Your task to perform on an android device: change the clock display to digital Image 0: 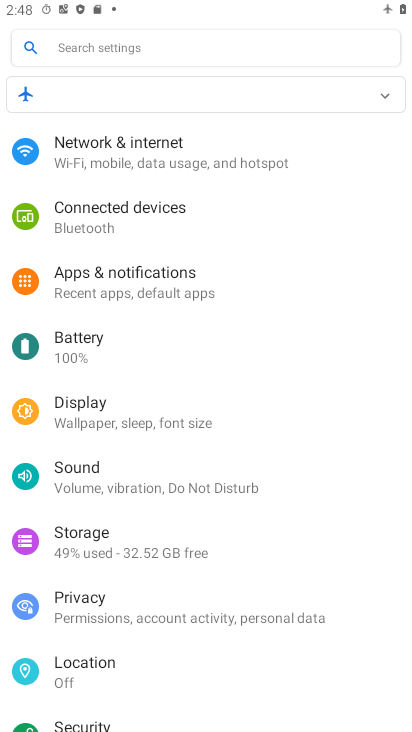
Step 0: press home button
Your task to perform on an android device: change the clock display to digital Image 1: 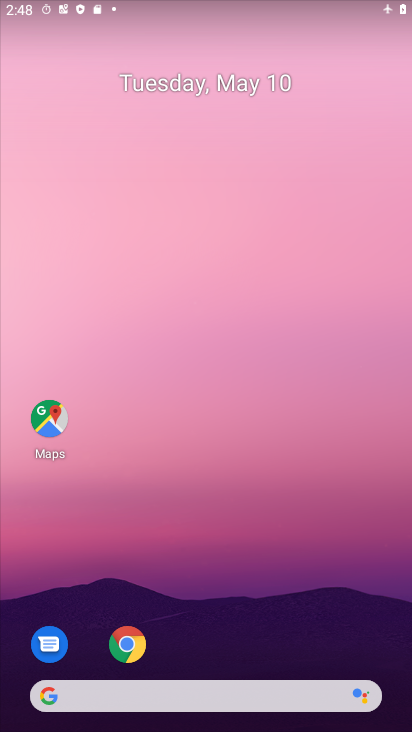
Step 1: drag from (242, 620) to (313, 168)
Your task to perform on an android device: change the clock display to digital Image 2: 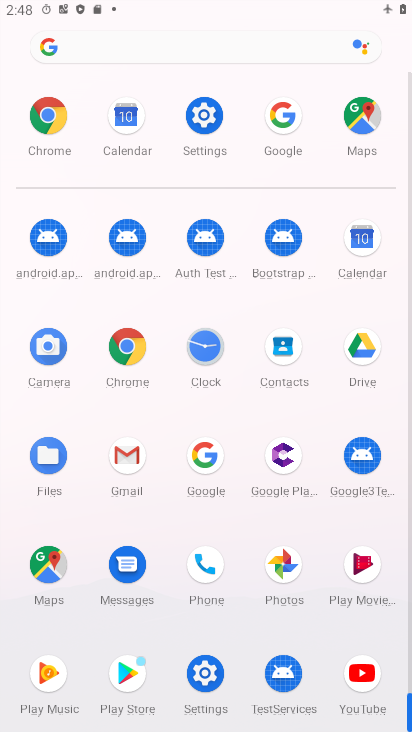
Step 2: click (216, 359)
Your task to perform on an android device: change the clock display to digital Image 3: 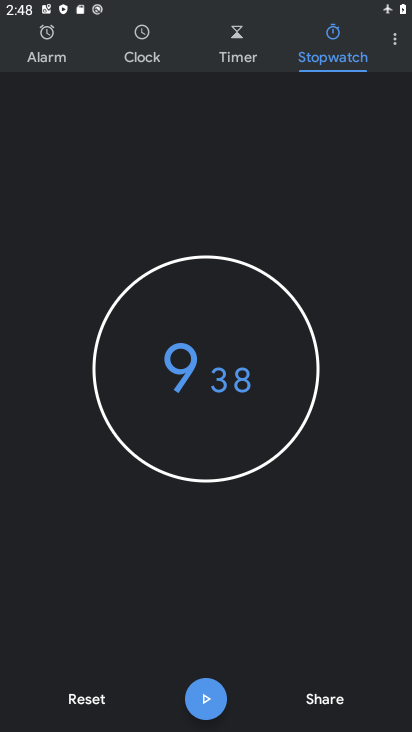
Step 3: click (396, 46)
Your task to perform on an android device: change the clock display to digital Image 4: 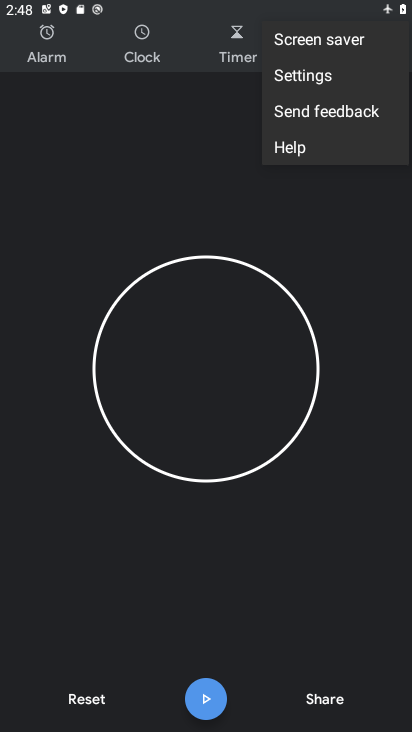
Step 4: click (319, 73)
Your task to perform on an android device: change the clock display to digital Image 5: 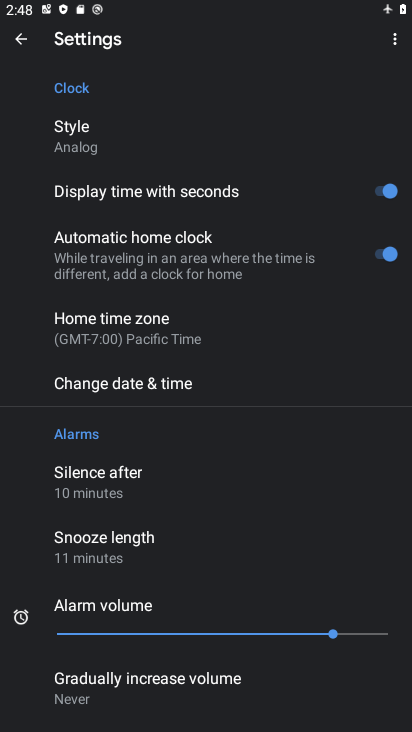
Step 5: click (140, 141)
Your task to perform on an android device: change the clock display to digital Image 6: 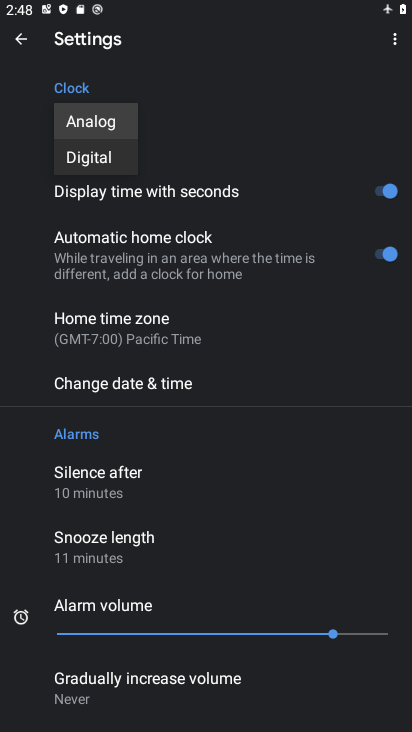
Step 6: click (124, 162)
Your task to perform on an android device: change the clock display to digital Image 7: 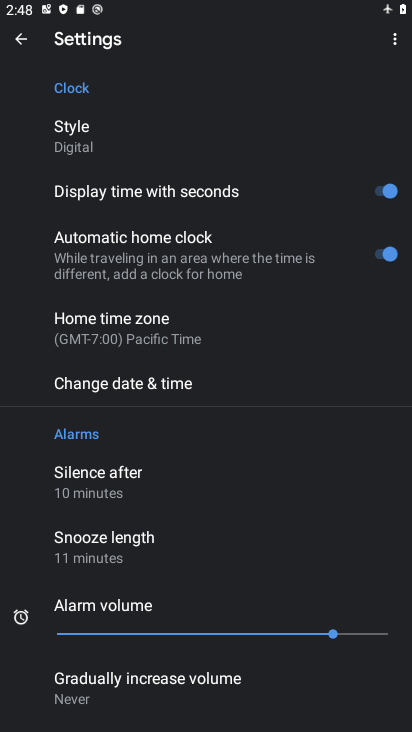
Step 7: task complete